Your task to perform on an android device: turn off improve location accuracy Image 0: 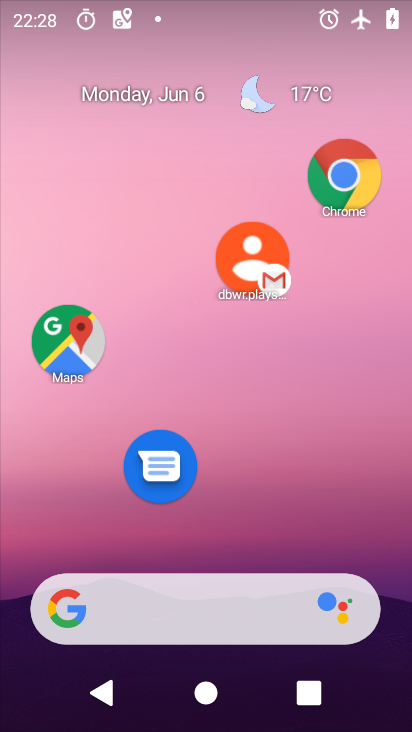
Step 0: drag from (247, 539) to (264, 2)
Your task to perform on an android device: turn off improve location accuracy Image 1: 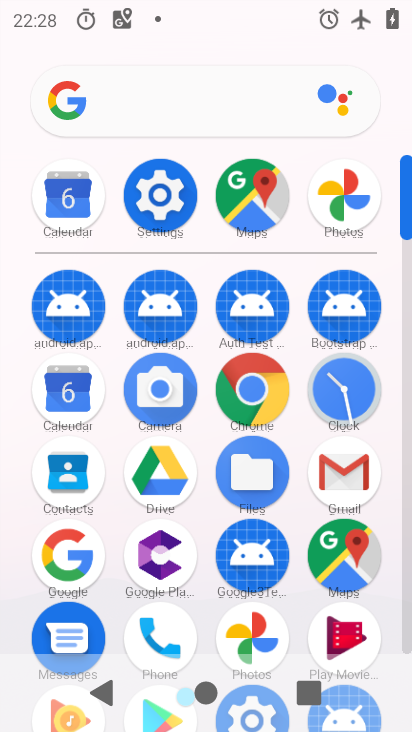
Step 1: click (155, 170)
Your task to perform on an android device: turn off improve location accuracy Image 2: 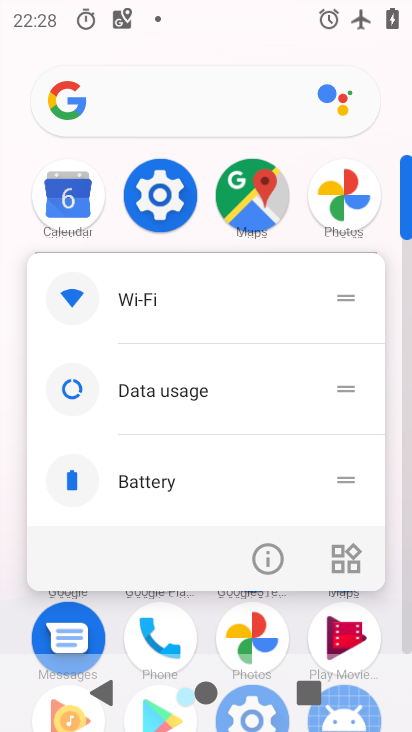
Step 2: click (294, 558)
Your task to perform on an android device: turn off improve location accuracy Image 3: 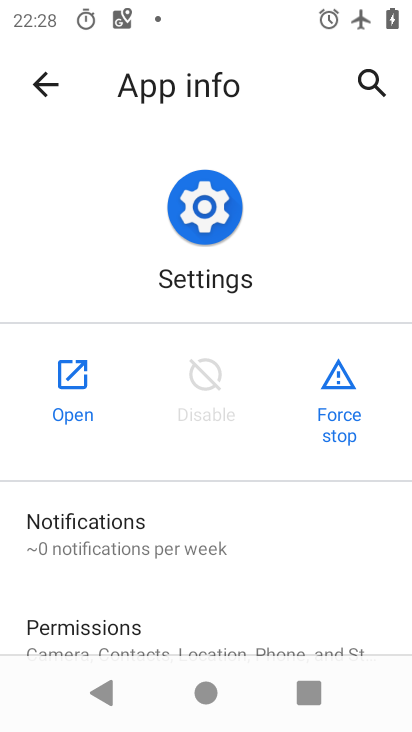
Step 3: click (60, 374)
Your task to perform on an android device: turn off improve location accuracy Image 4: 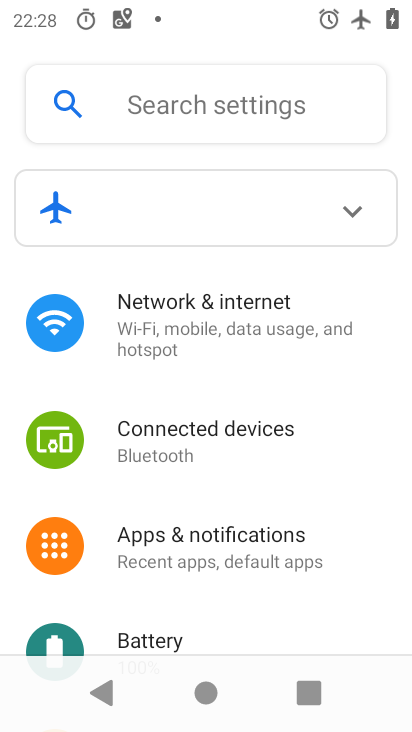
Step 4: drag from (216, 585) to (229, 20)
Your task to perform on an android device: turn off improve location accuracy Image 5: 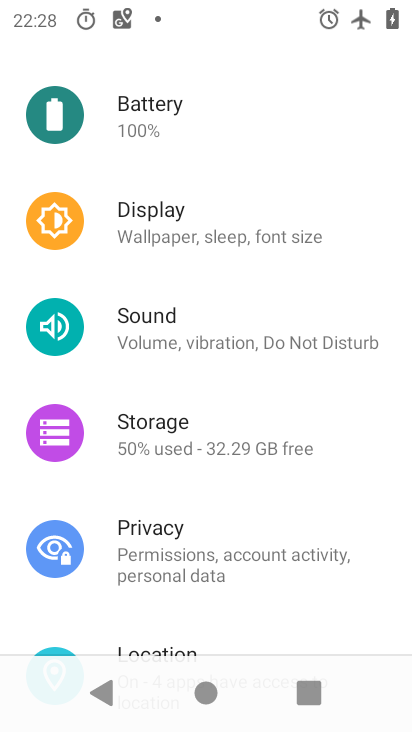
Step 5: drag from (236, 470) to (301, 86)
Your task to perform on an android device: turn off improve location accuracy Image 6: 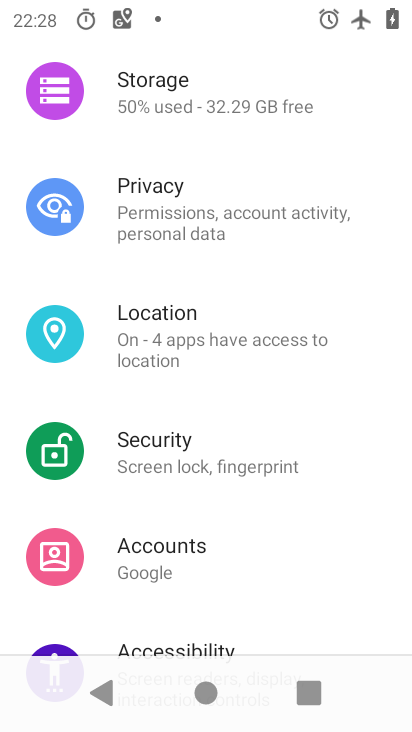
Step 6: click (181, 320)
Your task to perform on an android device: turn off improve location accuracy Image 7: 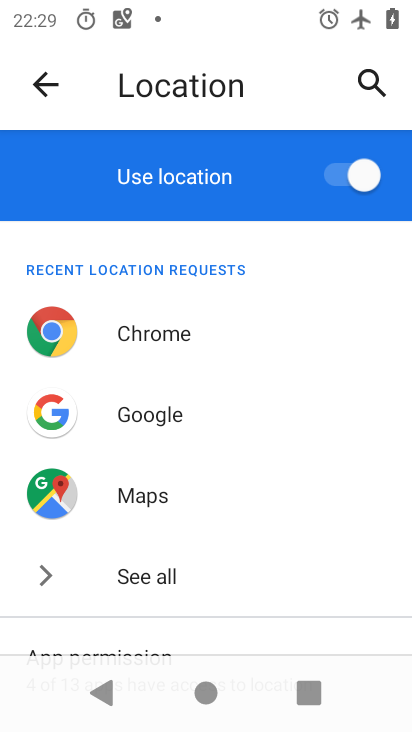
Step 7: drag from (225, 463) to (265, 60)
Your task to perform on an android device: turn off improve location accuracy Image 8: 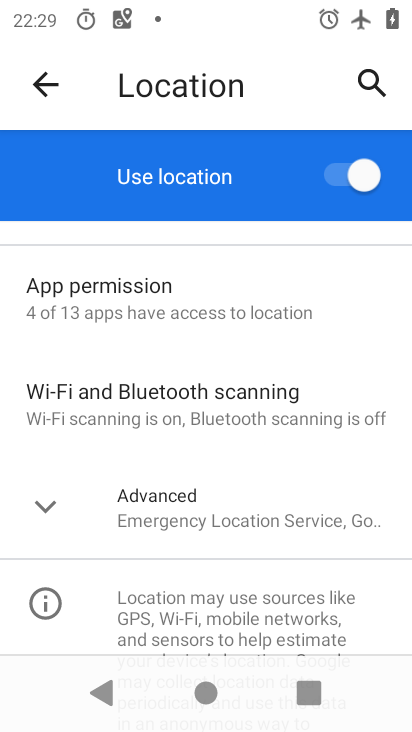
Step 8: drag from (249, 564) to (273, 148)
Your task to perform on an android device: turn off improve location accuracy Image 9: 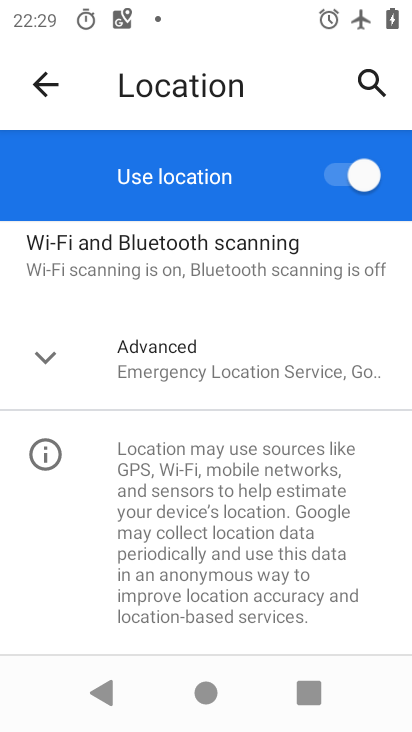
Step 9: click (73, 355)
Your task to perform on an android device: turn off improve location accuracy Image 10: 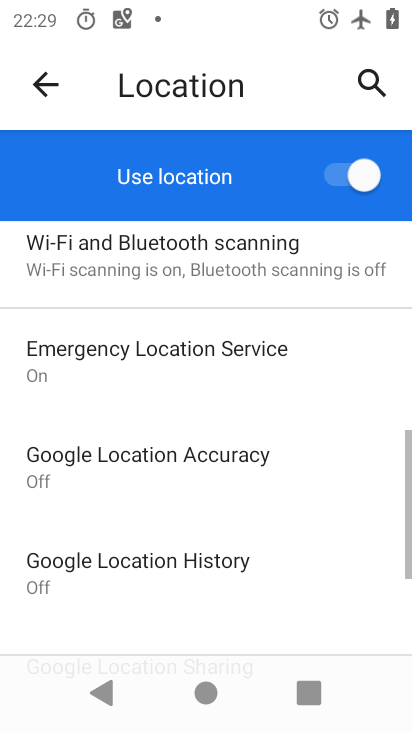
Step 10: click (232, 468)
Your task to perform on an android device: turn off improve location accuracy Image 11: 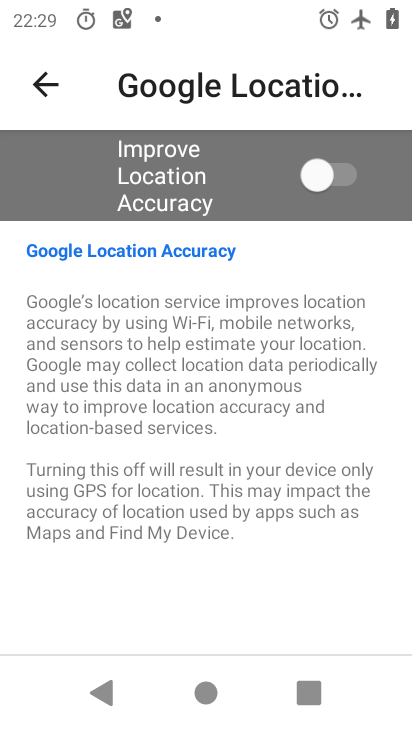
Step 11: task complete